Your task to perform on an android device: Open settings Image 0: 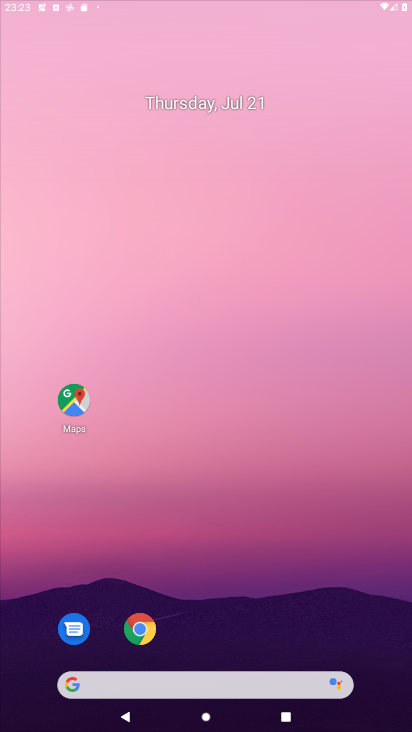
Step 0: press home button
Your task to perform on an android device: Open settings Image 1: 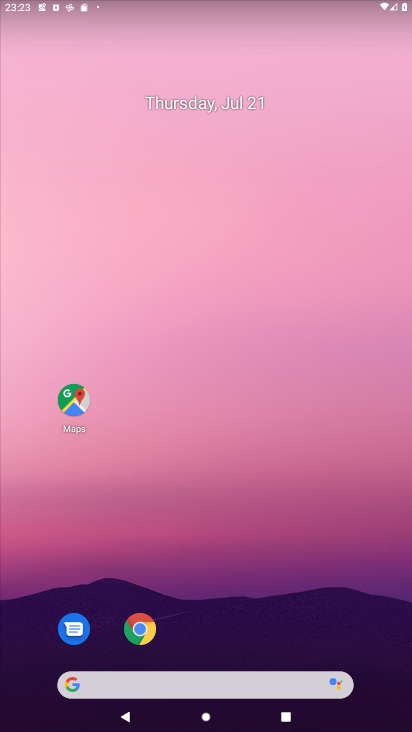
Step 1: drag from (268, 604) to (228, 190)
Your task to perform on an android device: Open settings Image 2: 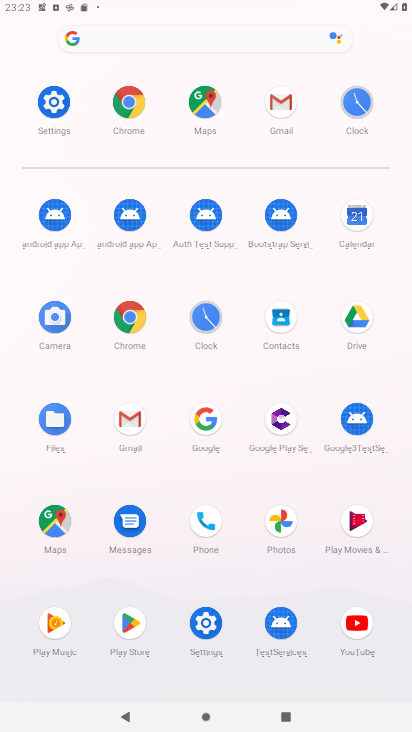
Step 2: click (204, 629)
Your task to perform on an android device: Open settings Image 3: 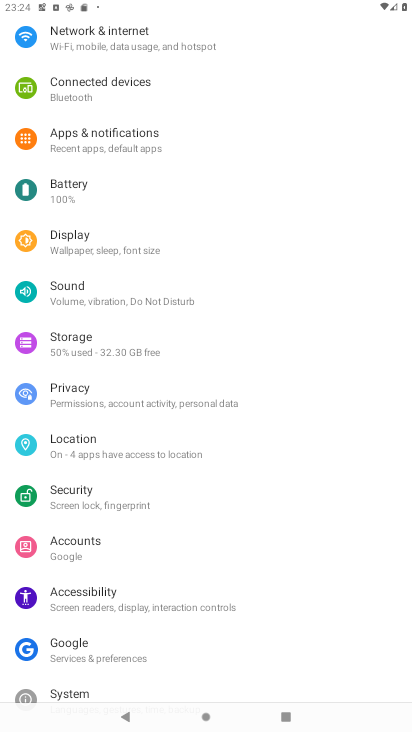
Step 3: task complete